Your task to perform on an android device: See recent photos Image 0: 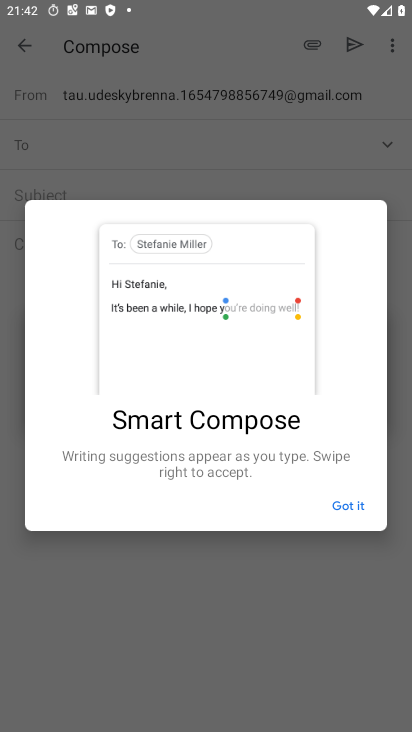
Step 0: press home button
Your task to perform on an android device: See recent photos Image 1: 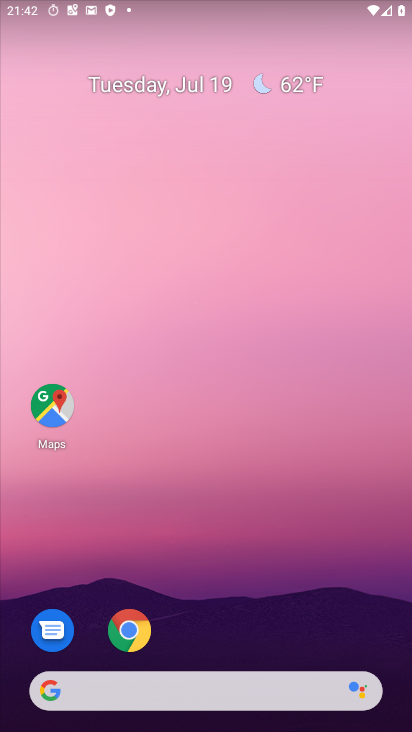
Step 1: drag from (221, 24) to (349, 24)
Your task to perform on an android device: See recent photos Image 2: 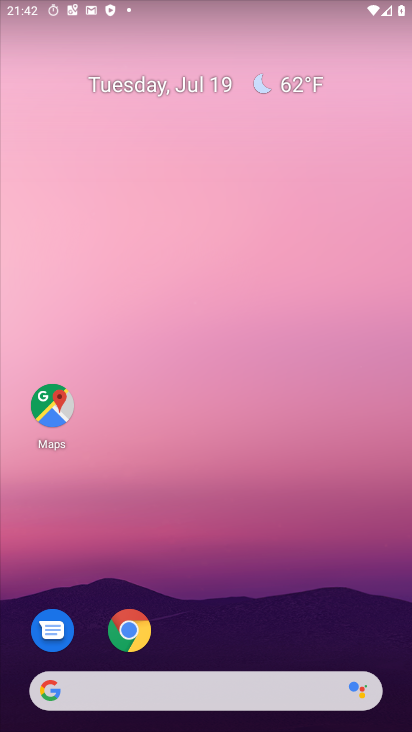
Step 2: drag from (16, 691) to (112, 675)
Your task to perform on an android device: See recent photos Image 3: 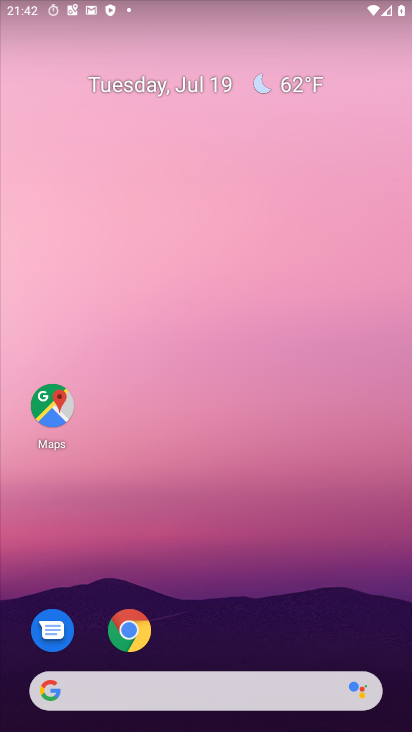
Step 3: drag from (63, 602) to (223, 216)
Your task to perform on an android device: See recent photos Image 4: 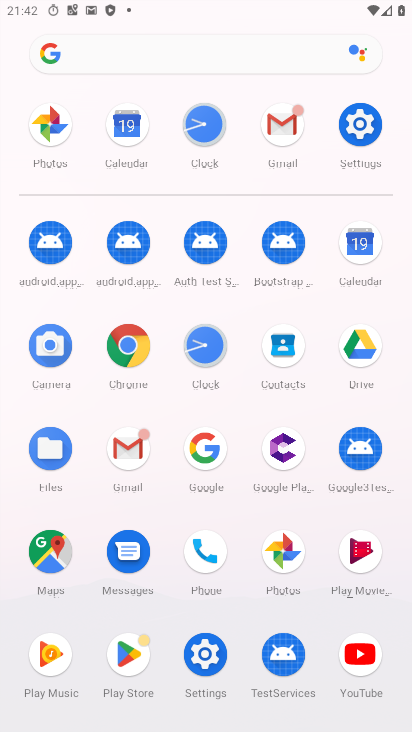
Step 4: click (282, 559)
Your task to perform on an android device: See recent photos Image 5: 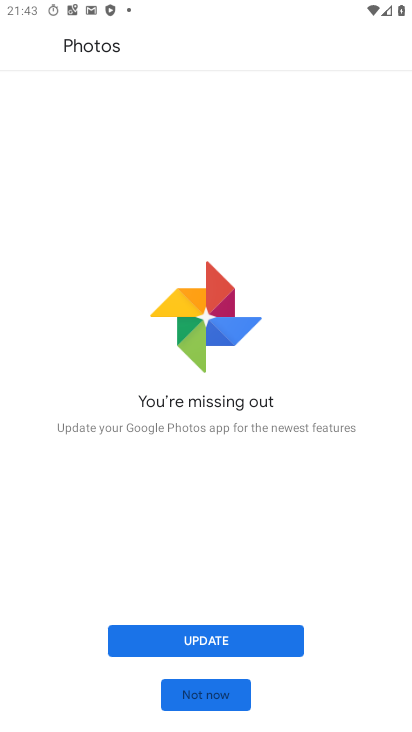
Step 5: click (208, 695)
Your task to perform on an android device: See recent photos Image 6: 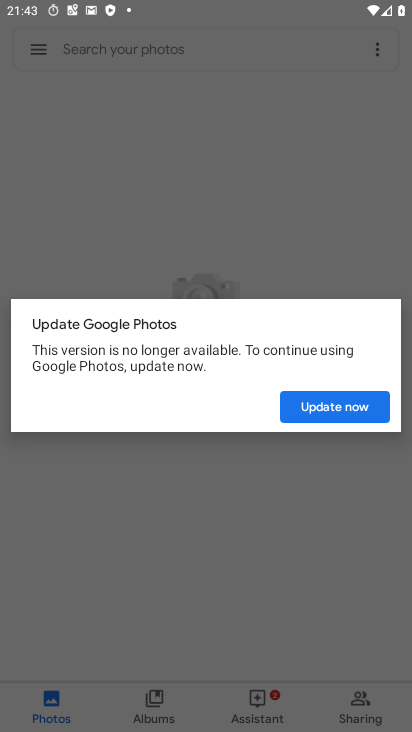
Step 6: click (378, 395)
Your task to perform on an android device: See recent photos Image 7: 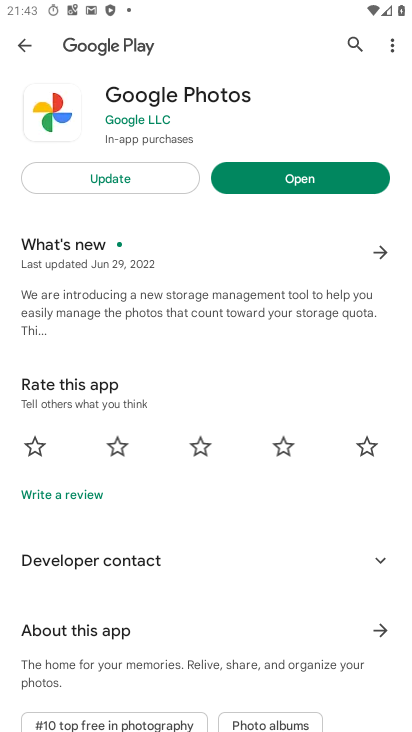
Step 7: click (316, 184)
Your task to perform on an android device: See recent photos Image 8: 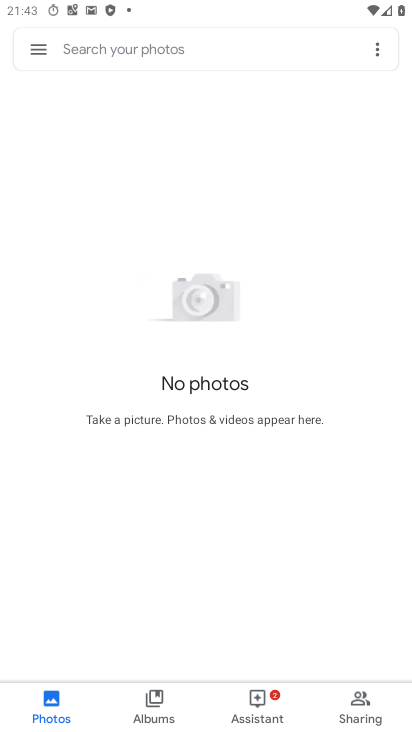
Step 8: task complete